Your task to perform on an android device: turn off translation in the chrome app Image 0: 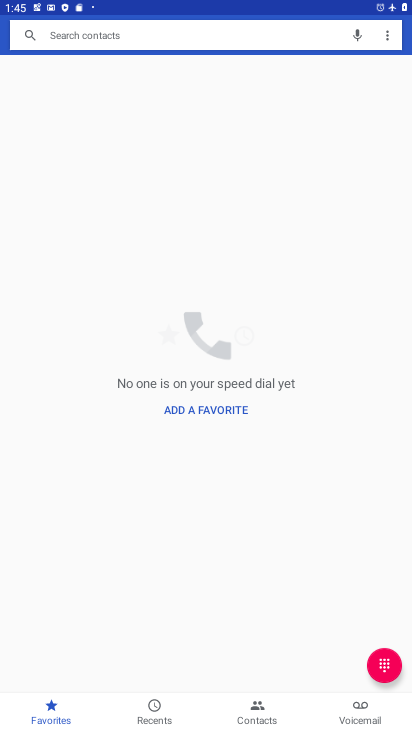
Step 0: press home button
Your task to perform on an android device: turn off translation in the chrome app Image 1: 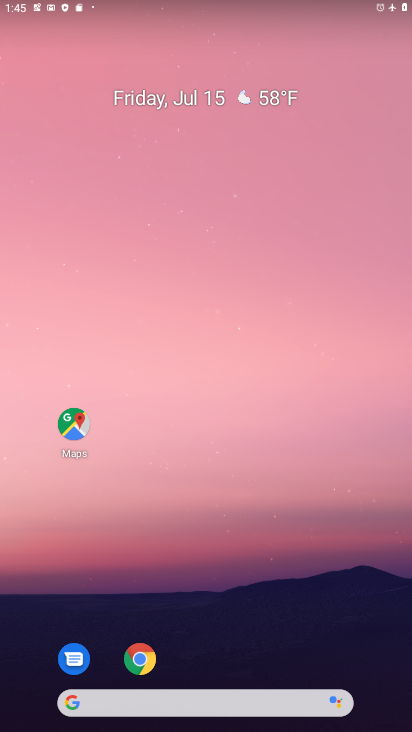
Step 1: drag from (222, 699) to (214, 73)
Your task to perform on an android device: turn off translation in the chrome app Image 2: 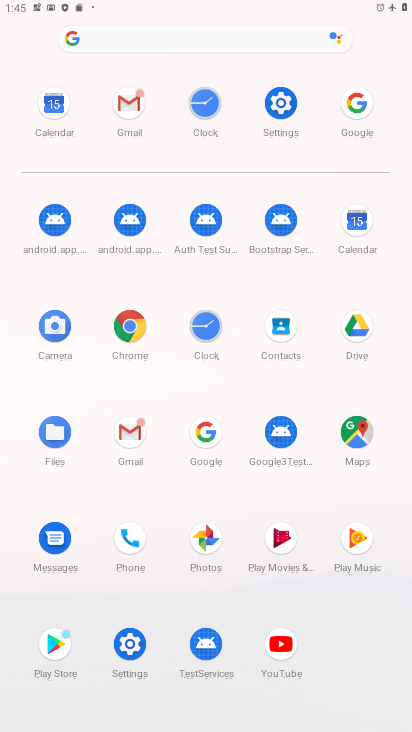
Step 2: click (130, 323)
Your task to perform on an android device: turn off translation in the chrome app Image 3: 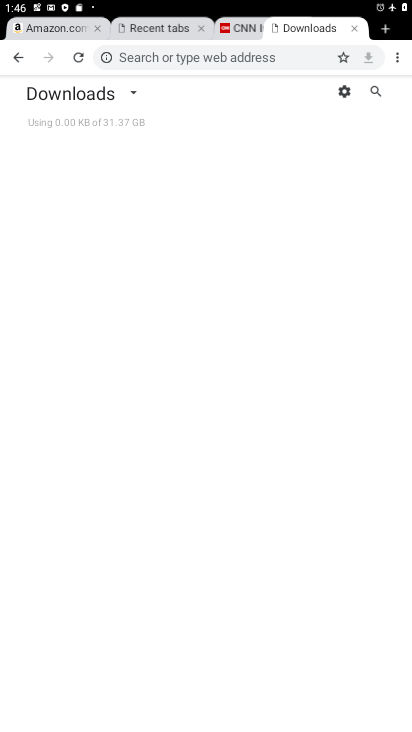
Step 3: click (399, 59)
Your task to perform on an android device: turn off translation in the chrome app Image 4: 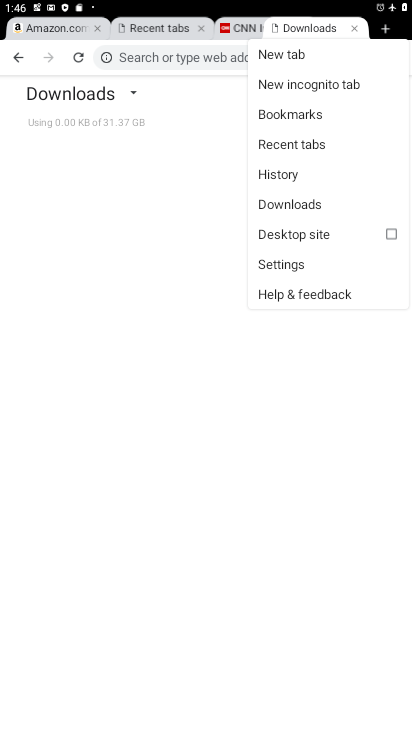
Step 4: click (289, 262)
Your task to perform on an android device: turn off translation in the chrome app Image 5: 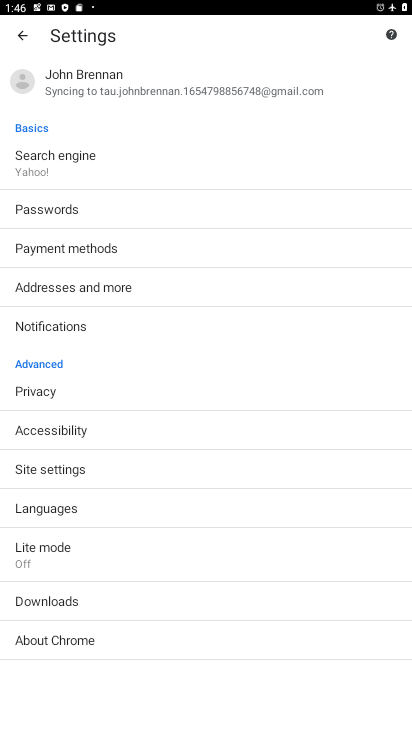
Step 5: click (62, 504)
Your task to perform on an android device: turn off translation in the chrome app Image 6: 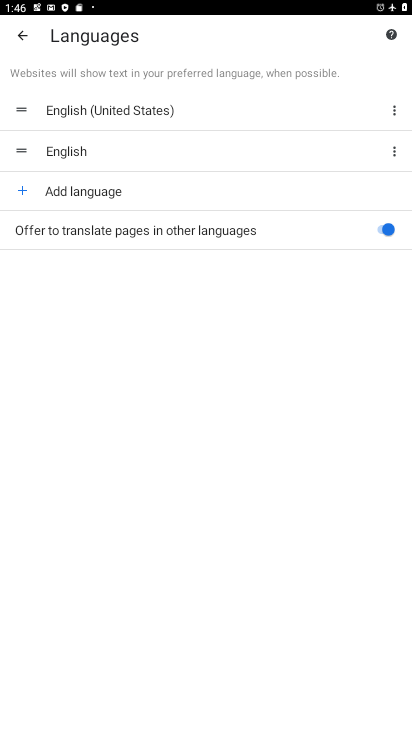
Step 6: click (385, 229)
Your task to perform on an android device: turn off translation in the chrome app Image 7: 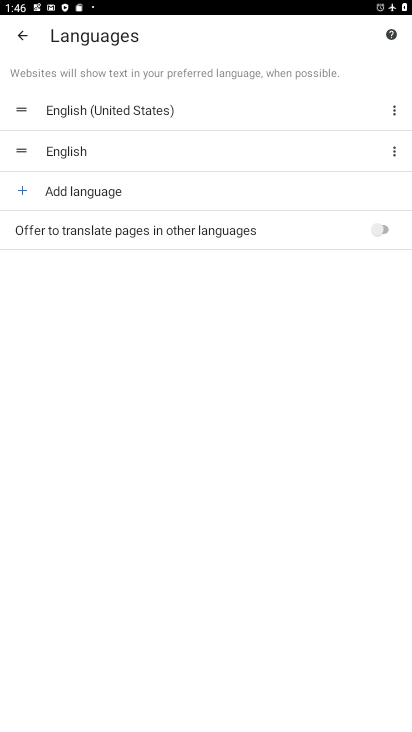
Step 7: task complete